Your task to perform on an android device: Open Chrome and go to settings Image 0: 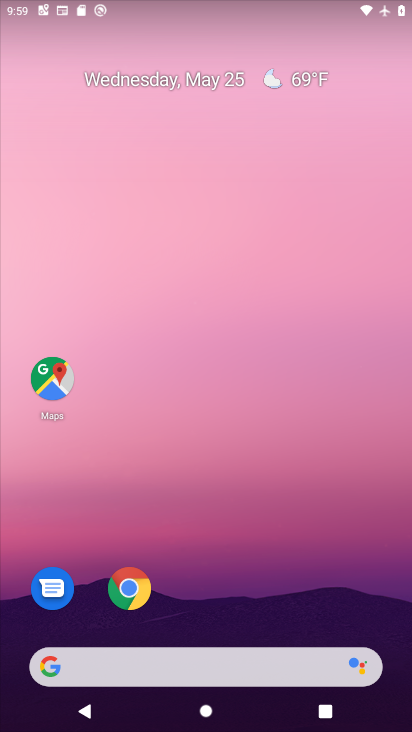
Step 0: drag from (371, 611) to (363, 157)
Your task to perform on an android device: Open Chrome and go to settings Image 1: 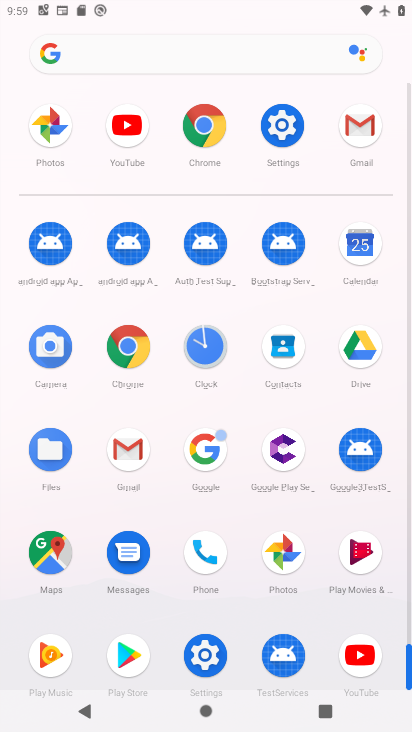
Step 1: click (132, 360)
Your task to perform on an android device: Open Chrome and go to settings Image 2: 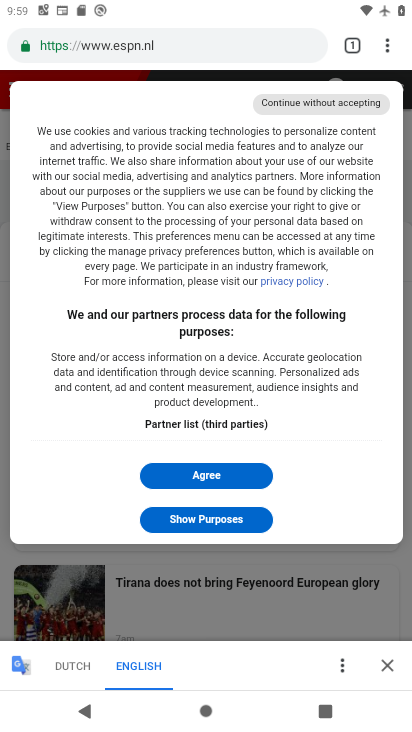
Step 2: click (386, 52)
Your task to perform on an android device: Open Chrome and go to settings Image 3: 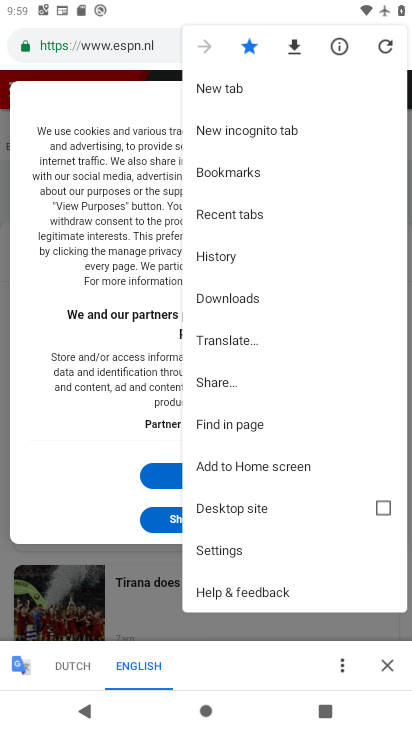
Step 3: click (235, 555)
Your task to perform on an android device: Open Chrome and go to settings Image 4: 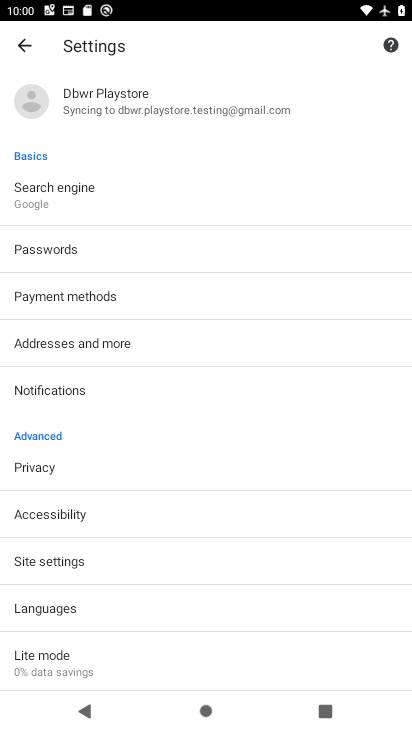
Step 4: task complete